Your task to perform on an android device: Open calendar and show me the fourth week of next month Image 0: 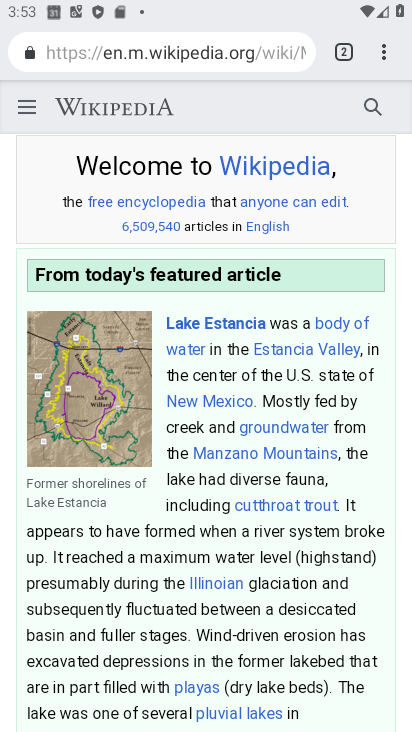
Step 0: press back button
Your task to perform on an android device: Open calendar and show me the fourth week of next month Image 1: 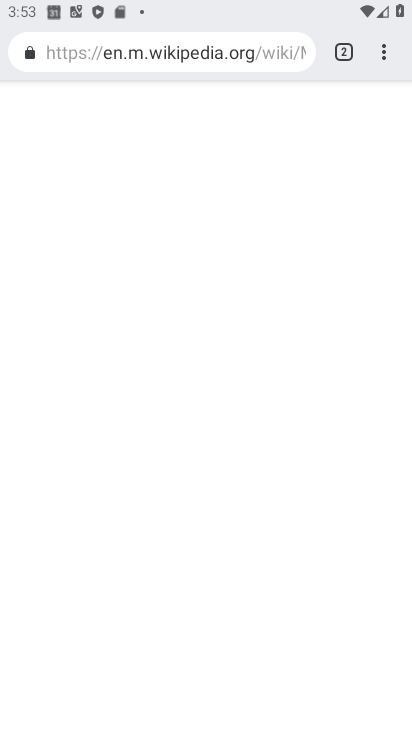
Step 1: press back button
Your task to perform on an android device: Open calendar and show me the fourth week of next month Image 2: 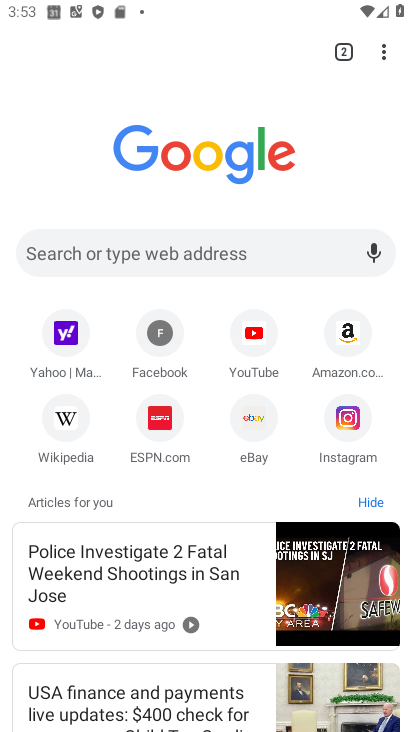
Step 2: press back button
Your task to perform on an android device: Open calendar and show me the fourth week of next month Image 3: 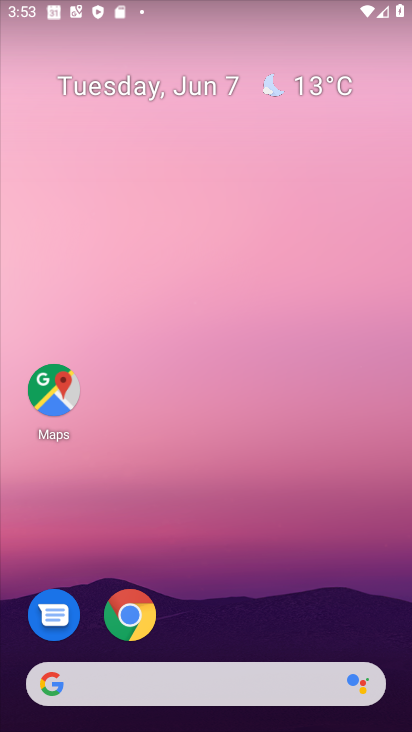
Step 3: drag from (276, 669) to (172, 40)
Your task to perform on an android device: Open calendar and show me the fourth week of next month Image 4: 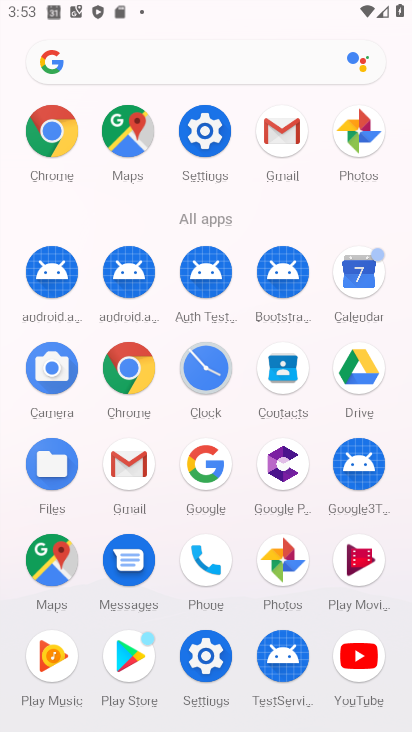
Step 4: click (358, 271)
Your task to perform on an android device: Open calendar and show me the fourth week of next month Image 5: 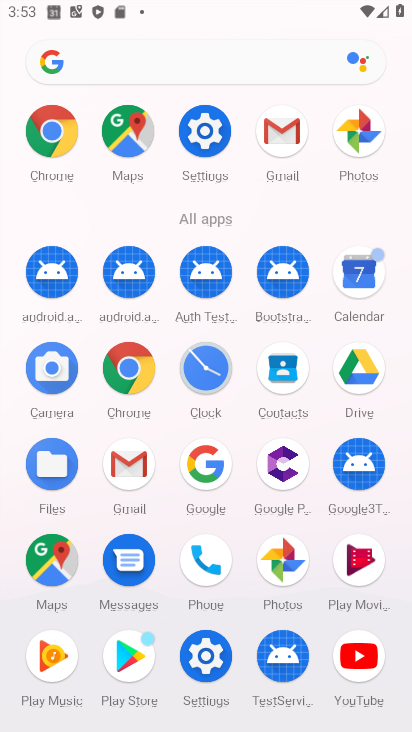
Step 5: click (357, 271)
Your task to perform on an android device: Open calendar and show me the fourth week of next month Image 6: 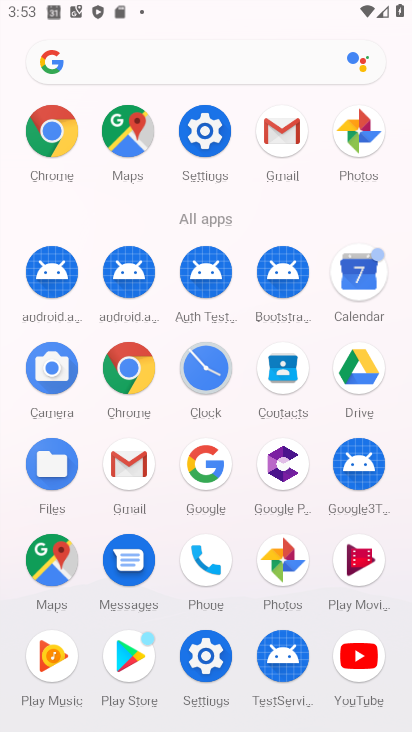
Step 6: click (355, 270)
Your task to perform on an android device: Open calendar and show me the fourth week of next month Image 7: 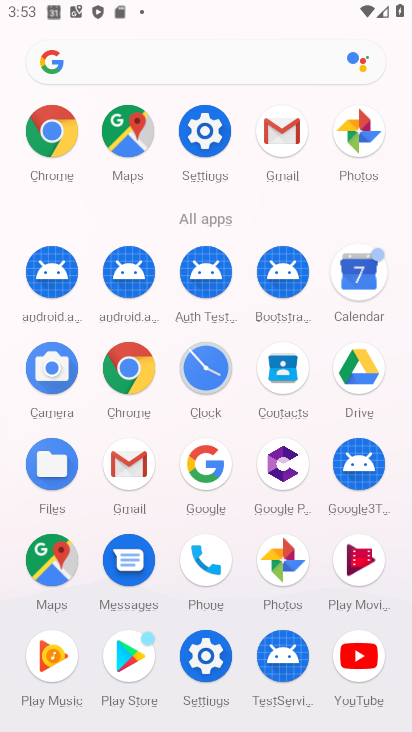
Step 7: click (355, 270)
Your task to perform on an android device: Open calendar and show me the fourth week of next month Image 8: 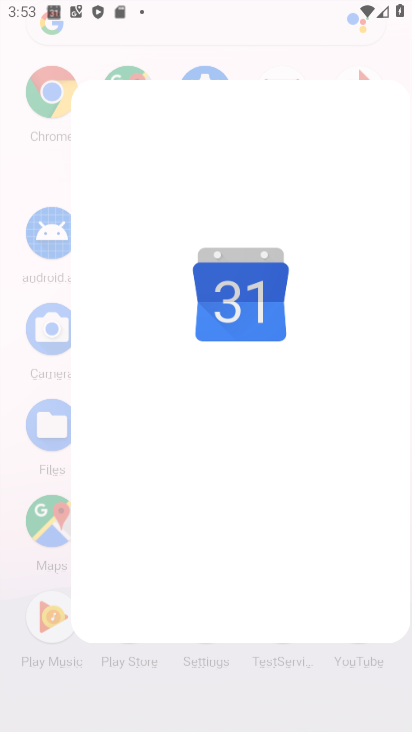
Step 8: click (370, 272)
Your task to perform on an android device: Open calendar and show me the fourth week of next month Image 9: 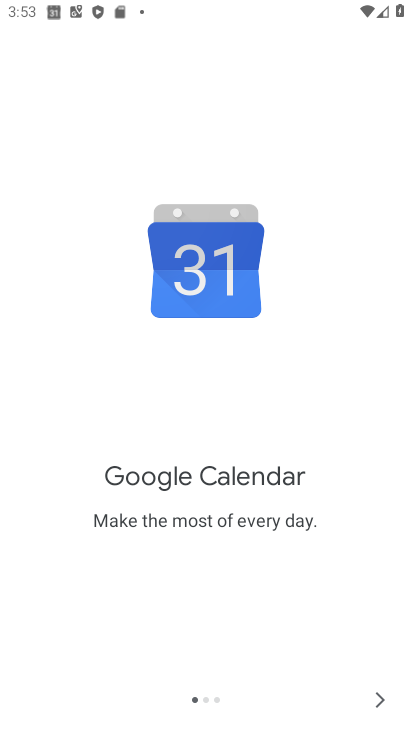
Step 9: click (380, 699)
Your task to perform on an android device: Open calendar and show me the fourth week of next month Image 10: 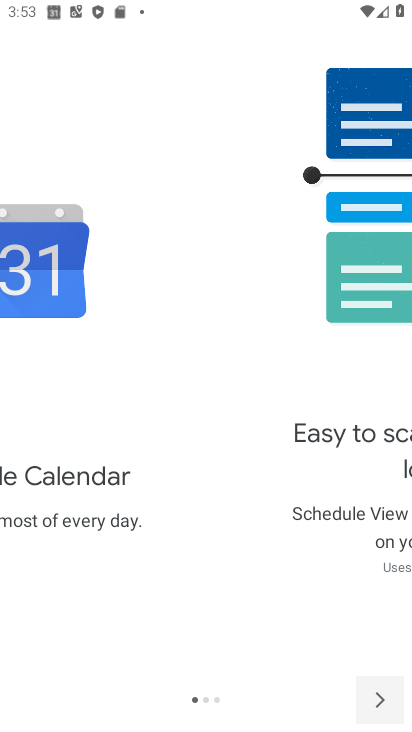
Step 10: click (379, 698)
Your task to perform on an android device: Open calendar and show me the fourth week of next month Image 11: 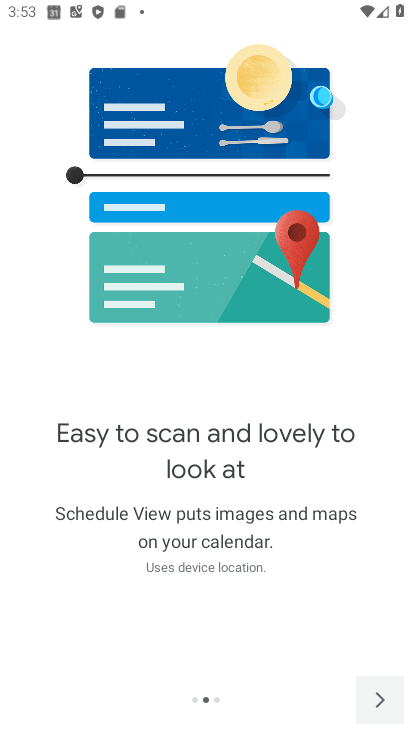
Step 11: click (379, 698)
Your task to perform on an android device: Open calendar and show me the fourth week of next month Image 12: 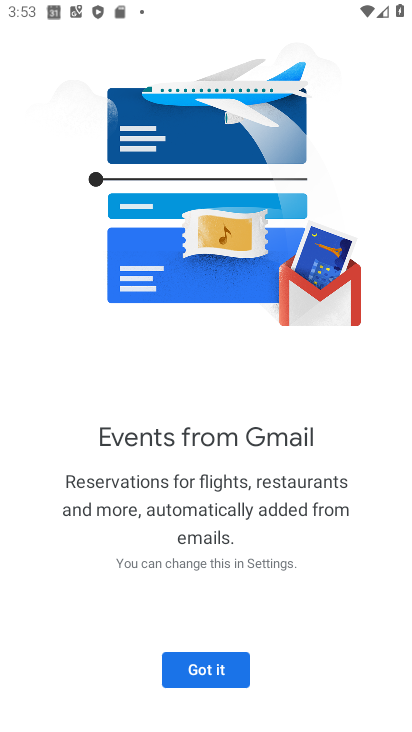
Step 12: click (378, 695)
Your task to perform on an android device: Open calendar and show me the fourth week of next month Image 13: 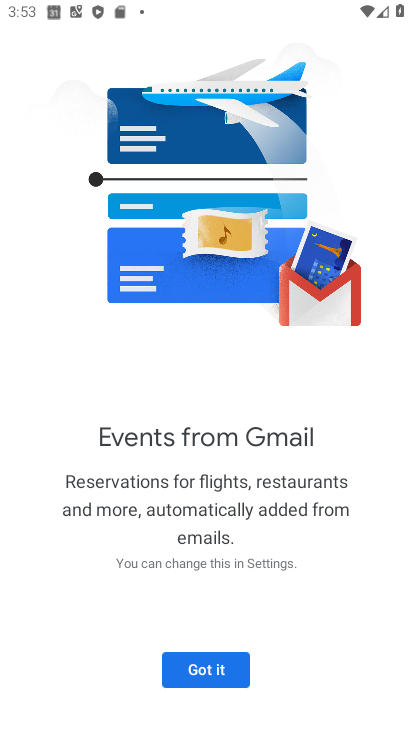
Step 13: click (208, 664)
Your task to perform on an android device: Open calendar and show me the fourth week of next month Image 14: 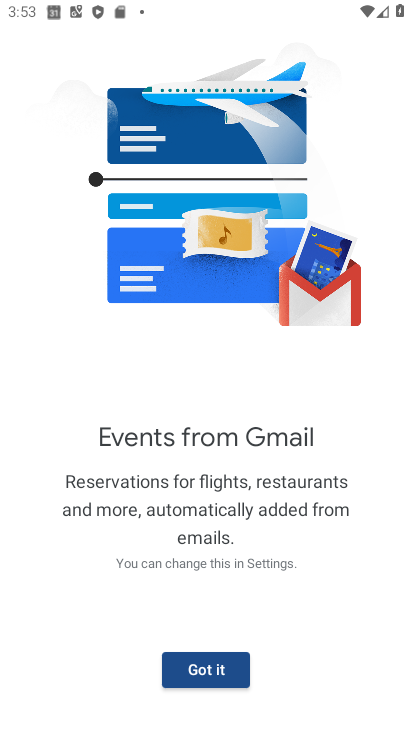
Step 14: click (201, 665)
Your task to perform on an android device: Open calendar and show me the fourth week of next month Image 15: 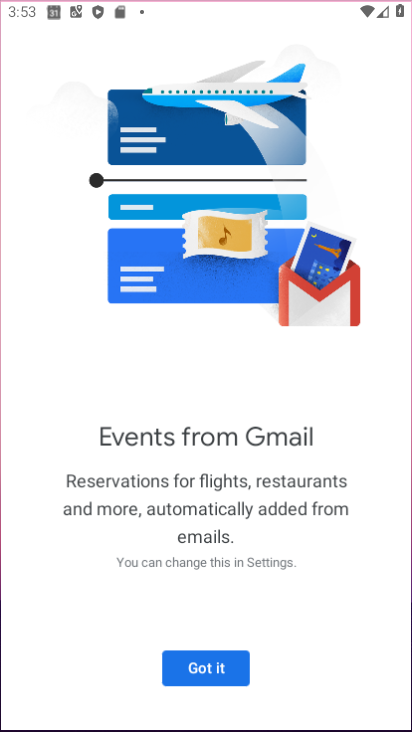
Step 15: click (201, 665)
Your task to perform on an android device: Open calendar and show me the fourth week of next month Image 16: 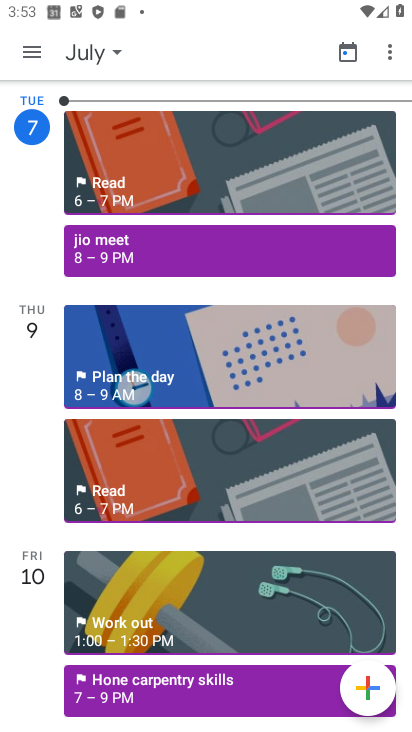
Step 16: click (109, 51)
Your task to perform on an android device: Open calendar and show me the fourth week of next month Image 17: 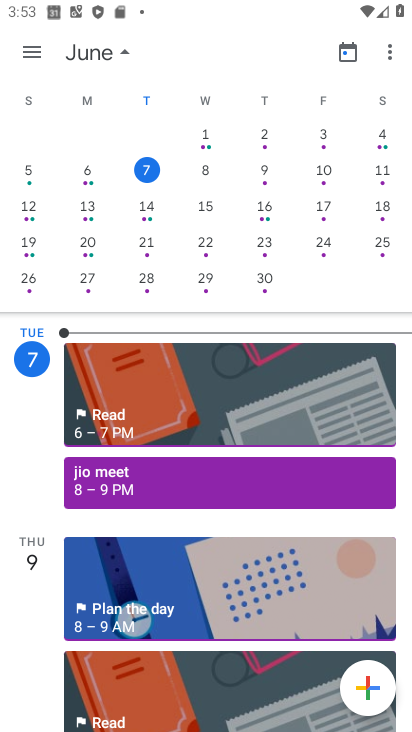
Step 17: click (267, 237)
Your task to perform on an android device: Open calendar and show me the fourth week of next month Image 18: 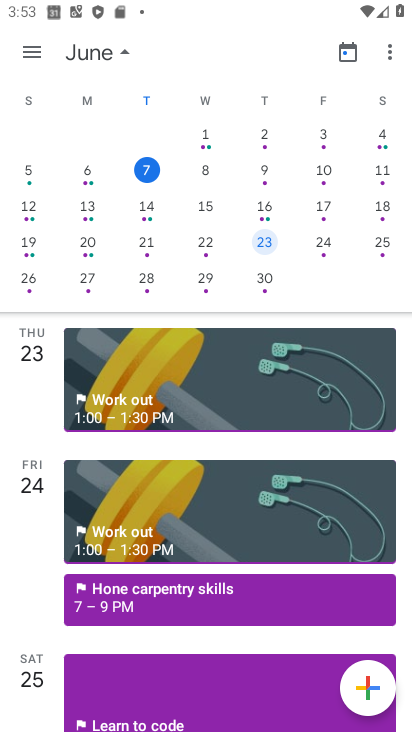
Step 18: click (263, 245)
Your task to perform on an android device: Open calendar and show me the fourth week of next month Image 19: 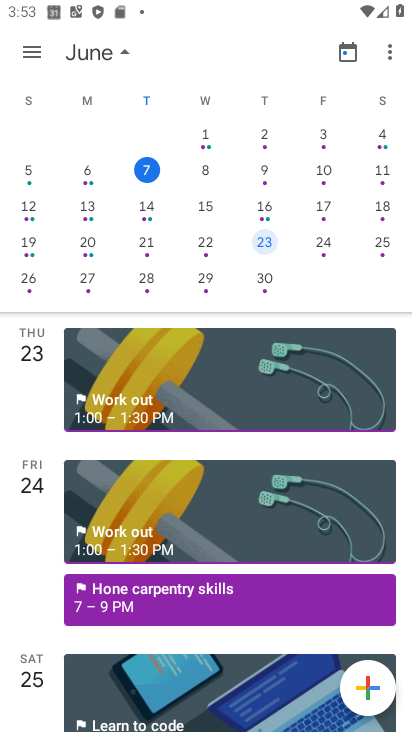
Step 19: click (263, 245)
Your task to perform on an android device: Open calendar and show me the fourth week of next month Image 20: 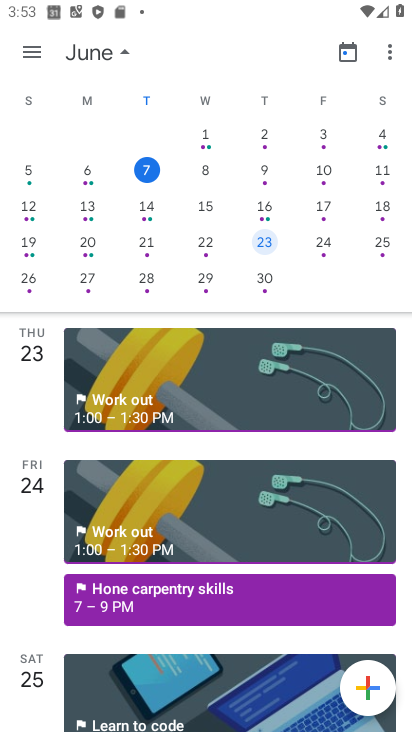
Step 20: click (260, 239)
Your task to perform on an android device: Open calendar and show me the fourth week of next month Image 21: 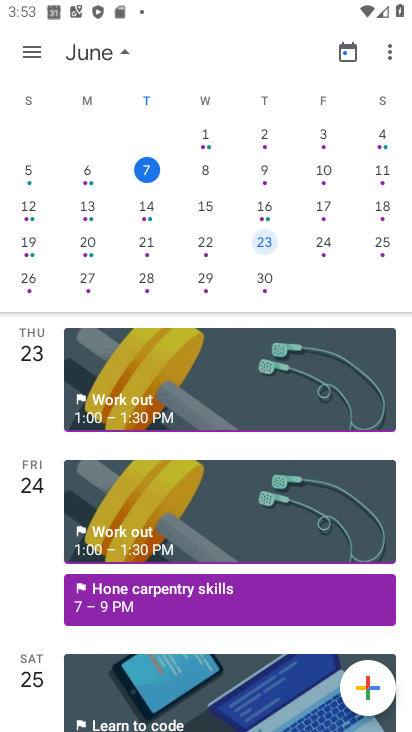
Step 21: task complete